Your task to perform on an android device: Open Youtube and go to the subscriptions tab Image 0: 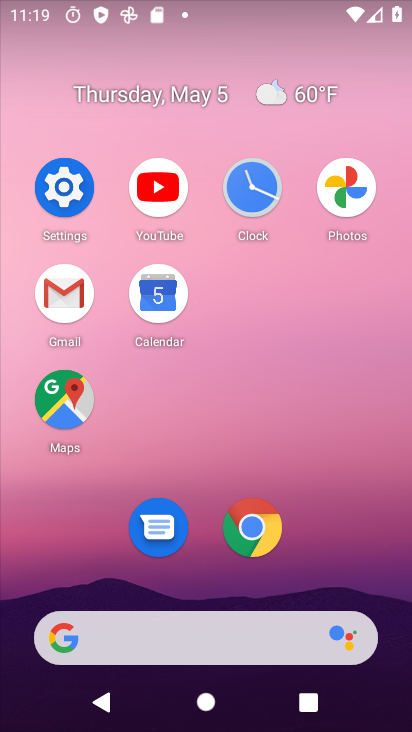
Step 0: click (170, 192)
Your task to perform on an android device: Open Youtube and go to the subscriptions tab Image 1: 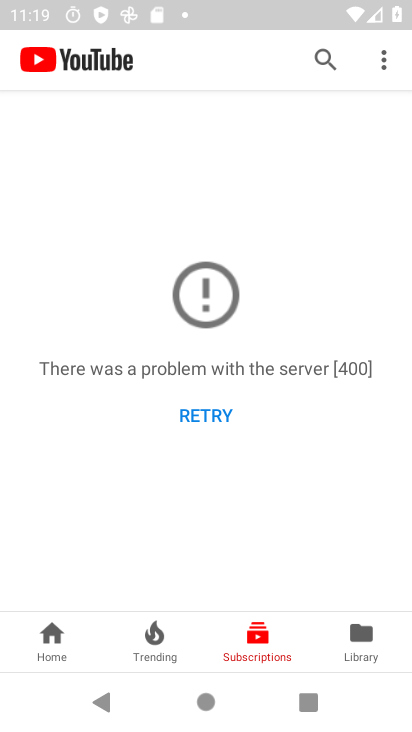
Step 1: task complete